Your task to perform on an android device: Open the phone app and click the voicemail tab. Image 0: 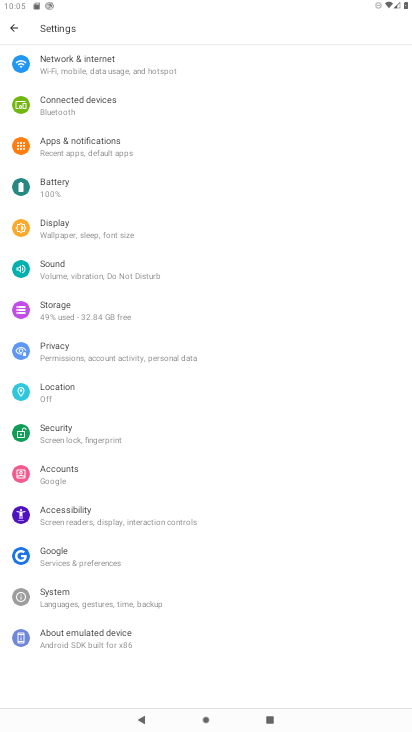
Step 0: press home button
Your task to perform on an android device: Open the phone app and click the voicemail tab. Image 1: 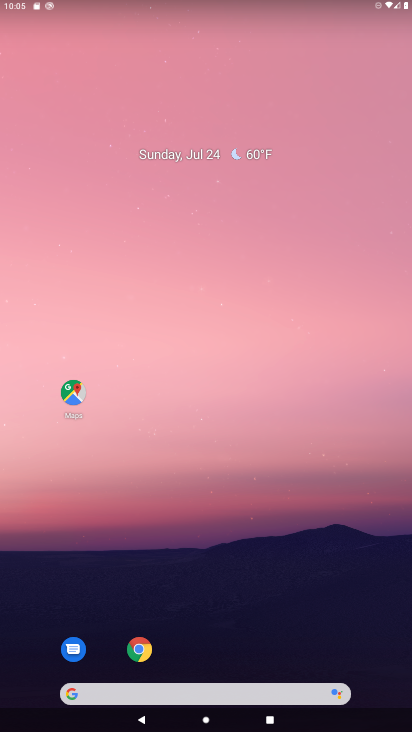
Step 1: drag from (266, 609) to (228, 127)
Your task to perform on an android device: Open the phone app and click the voicemail tab. Image 2: 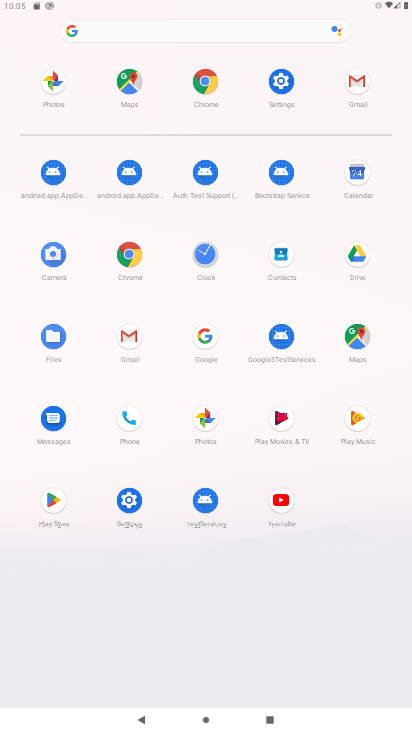
Step 2: click (123, 417)
Your task to perform on an android device: Open the phone app and click the voicemail tab. Image 3: 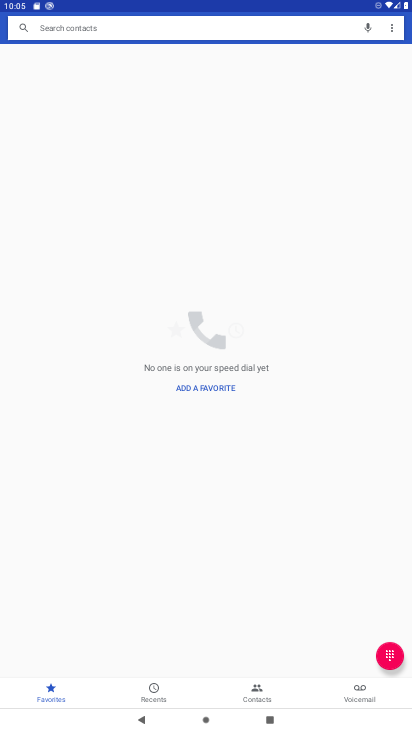
Step 3: click (372, 691)
Your task to perform on an android device: Open the phone app and click the voicemail tab. Image 4: 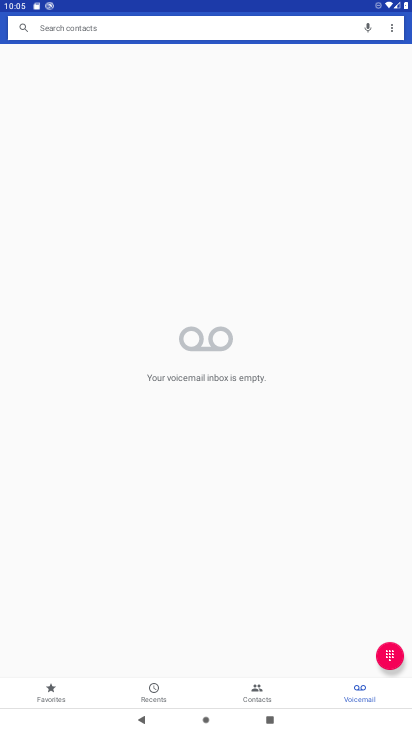
Step 4: task complete